Your task to perform on an android device: turn notification dots on Image 0: 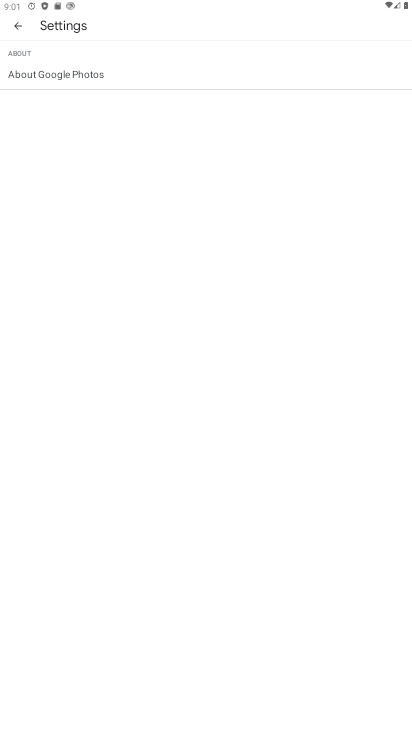
Step 0: press home button
Your task to perform on an android device: turn notification dots on Image 1: 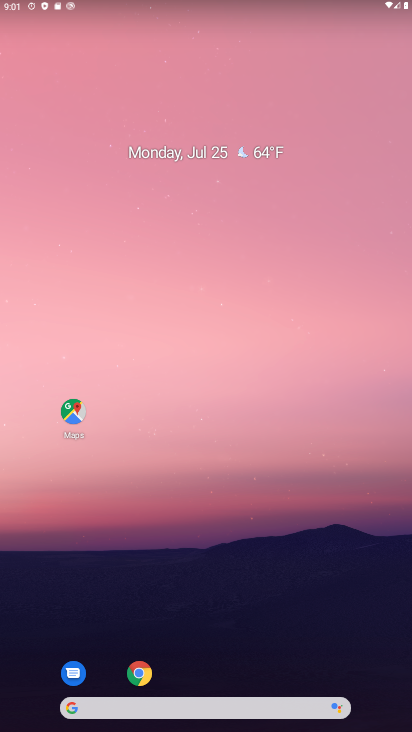
Step 1: drag from (222, 671) to (229, 257)
Your task to perform on an android device: turn notification dots on Image 2: 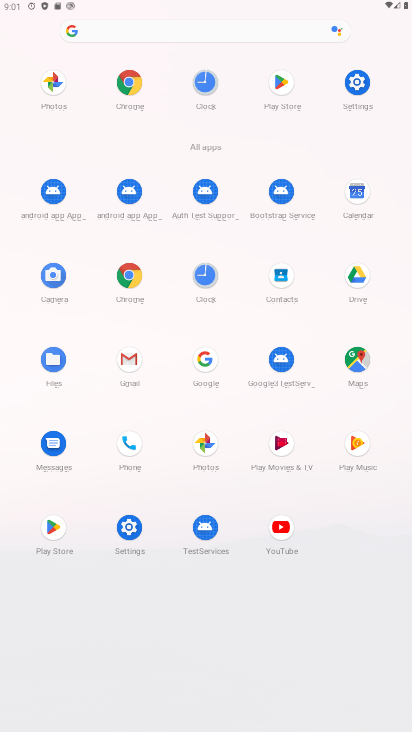
Step 2: click (356, 81)
Your task to perform on an android device: turn notification dots on Image 3: 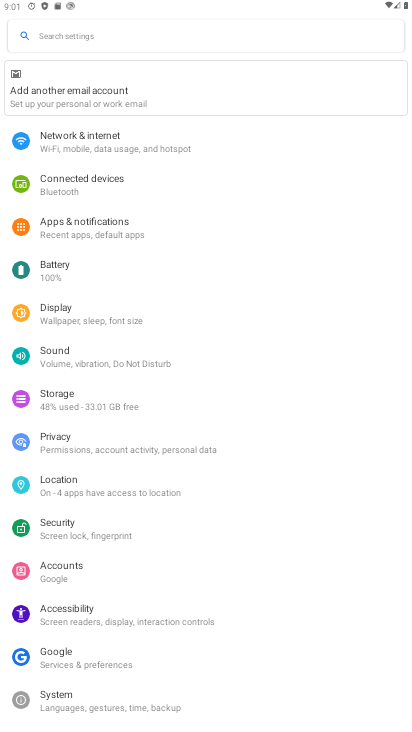
Step 3: click (117, 225)
Your task to perform on an android device: turn notification dots on Image 4: 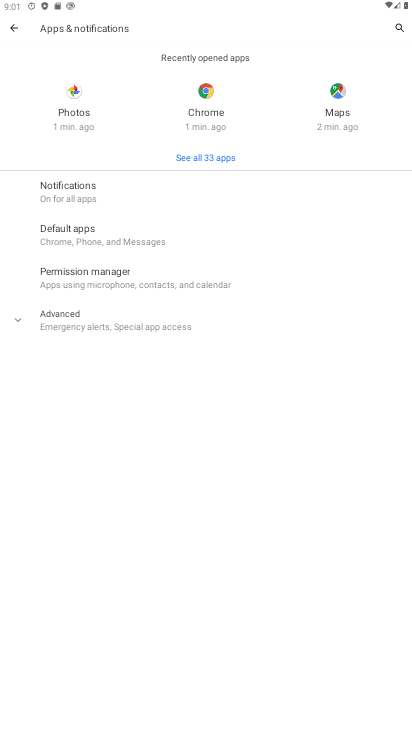
Step 4: click (113, 196)
Your task to perform on an android device: turn notification dots on Image 5: 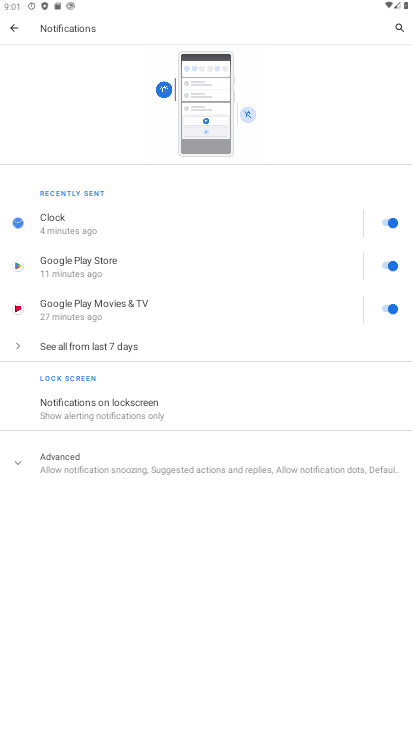
Step 5: click (49, 460)
Your task to perform on an android device: turn notification dots on Image 6: 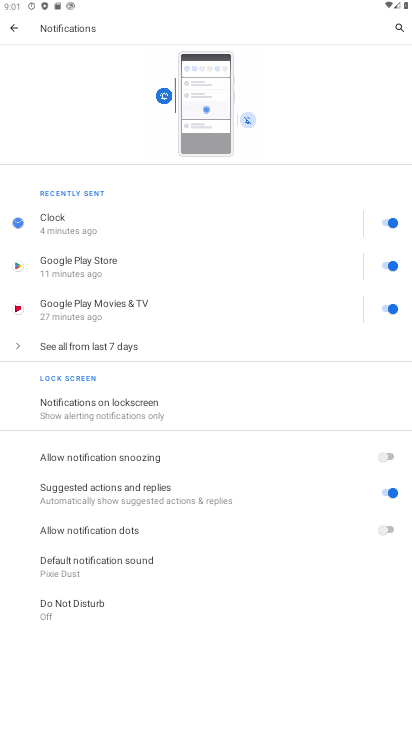
Step 6: click (386, 523)
Your task to perform on an android device: turn notification dots on Image 7: 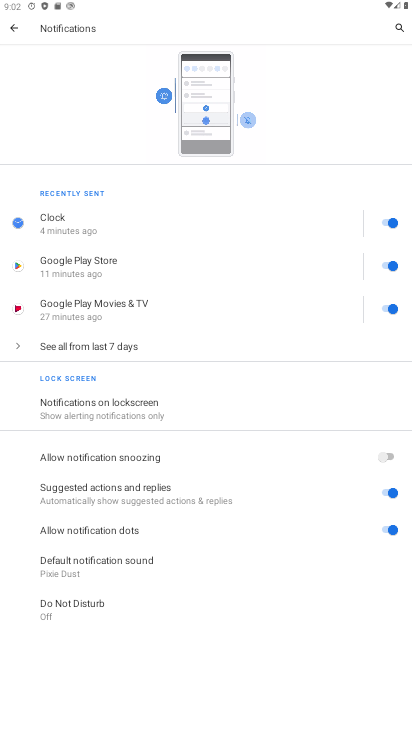
Step 7: task complete